Your task to perform on an android device: manage bookmarks in the chrome app Image 0: 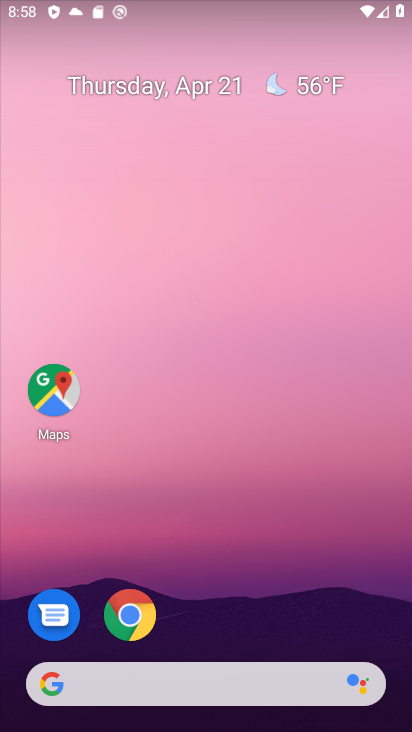
Step 0: click (132, 619)
Your task to perform on an android device: manage bookmarks in the chrome app Image 1: 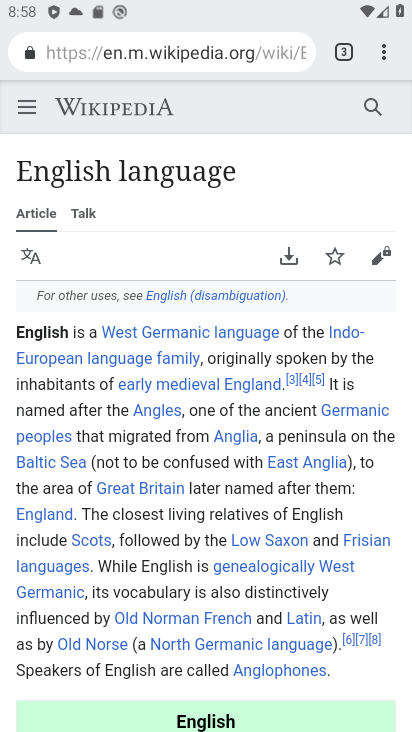
Step 1: click (378, 52)
Your task to perform on an android device: manage bookmarks in the chrome app Image 2: 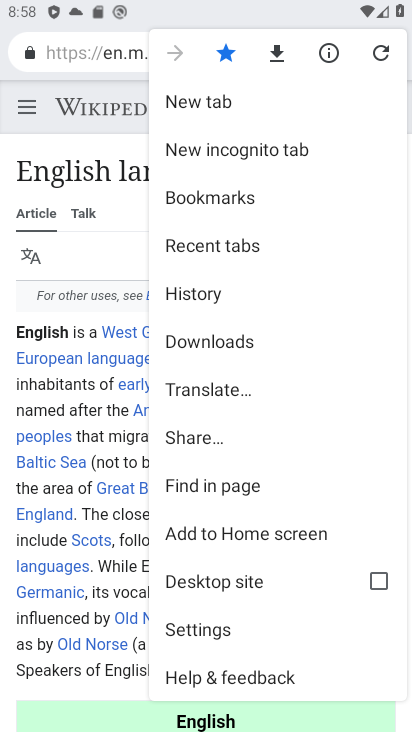
Step 2: click (224, 202)
Your task to perform on an android device: manage bookmarks in the chrome app Image 3: 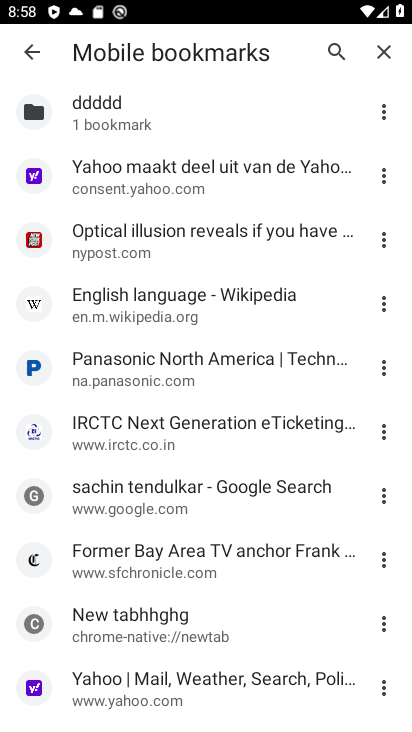
Step 3: click (378, 235)
Your task to perform on an android device: manage bookmarks in the chrome app Image 4: 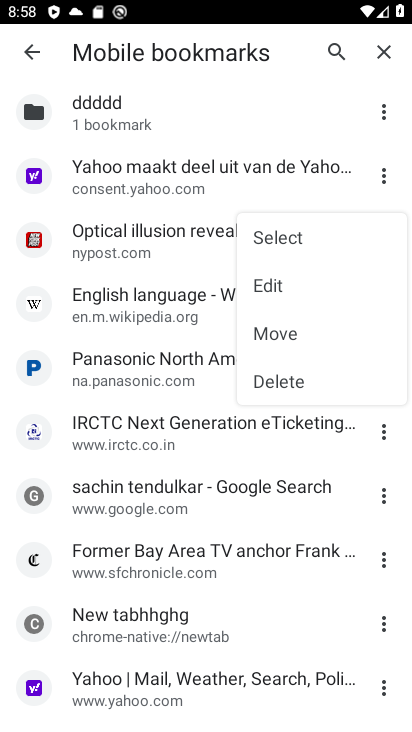
Step 4: click (291, 390)
Your task to perform on an android device: manage bookmarks in the chrome app Image 5: 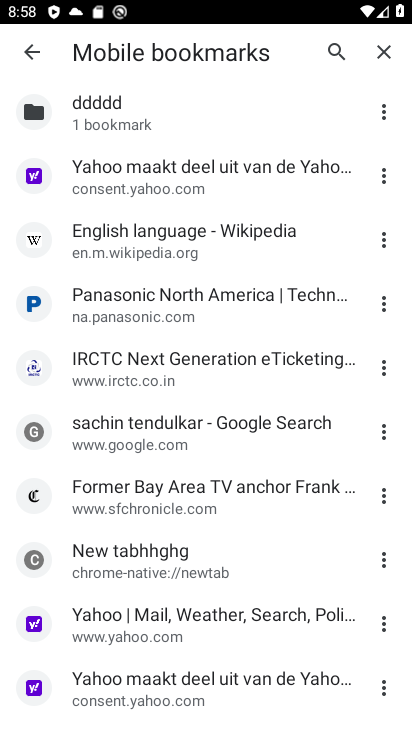
Step 5: task complete